Your task to perform on an android device: Go to Maps Image 0: 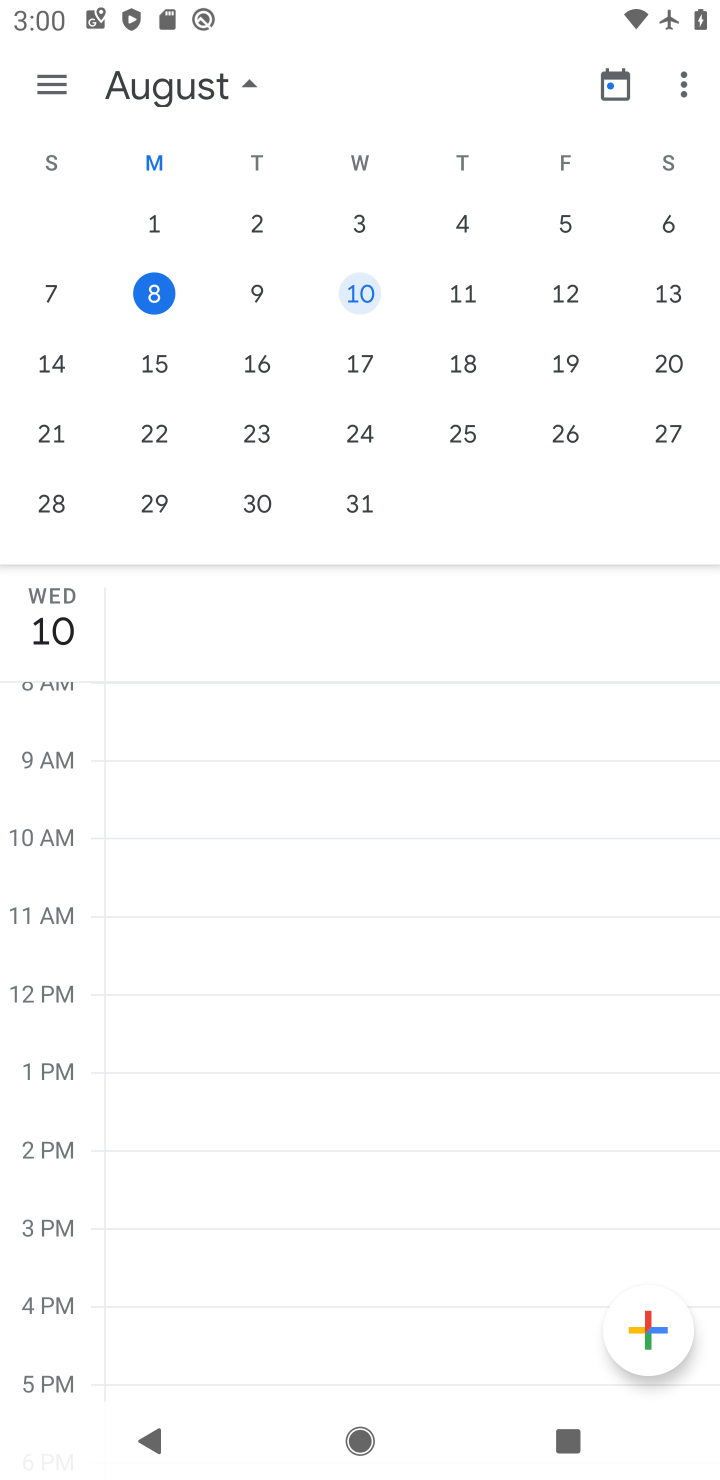
Step 0: press home button
Your task to perform on an android device: Go to Maps Image 1: 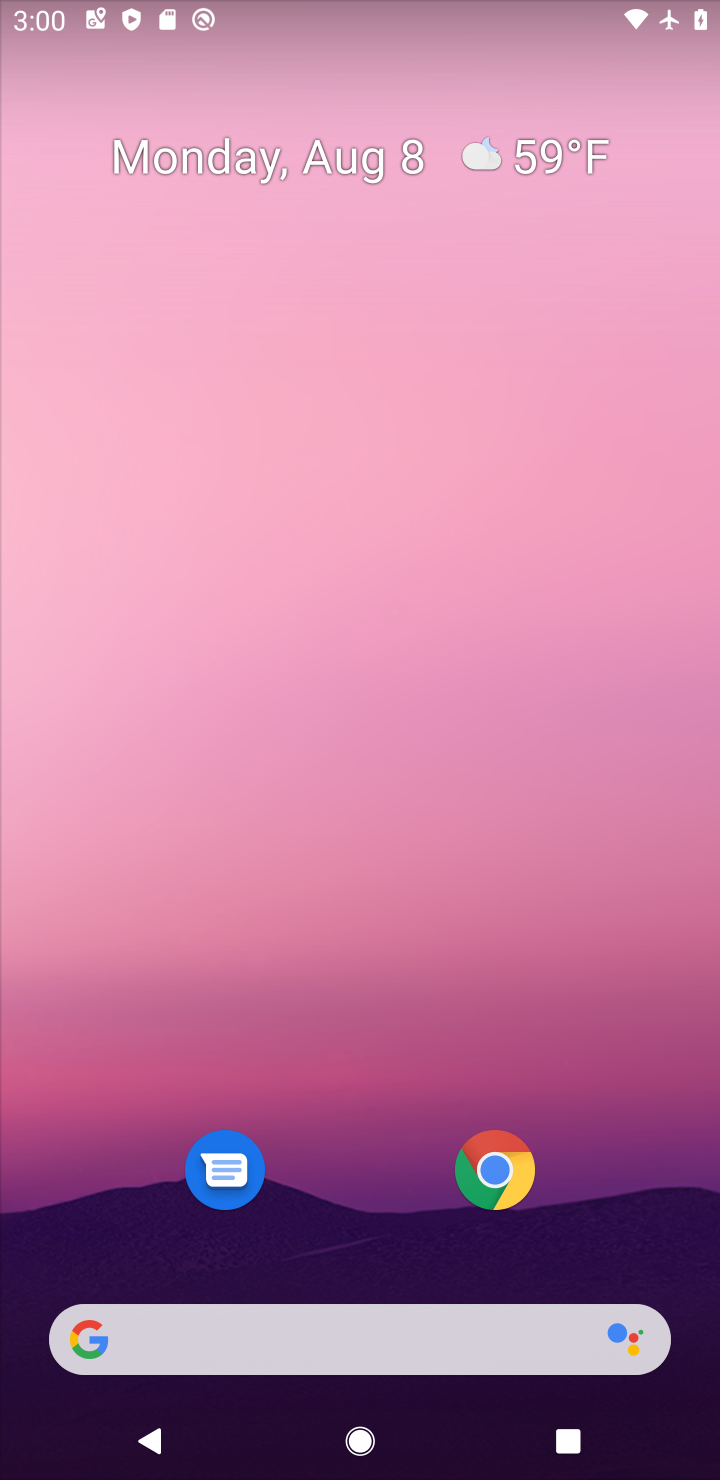
Step 1: drag from (381, 976) to (387, 434)
Your task to perform on an android device: Go to Maps Image 2: 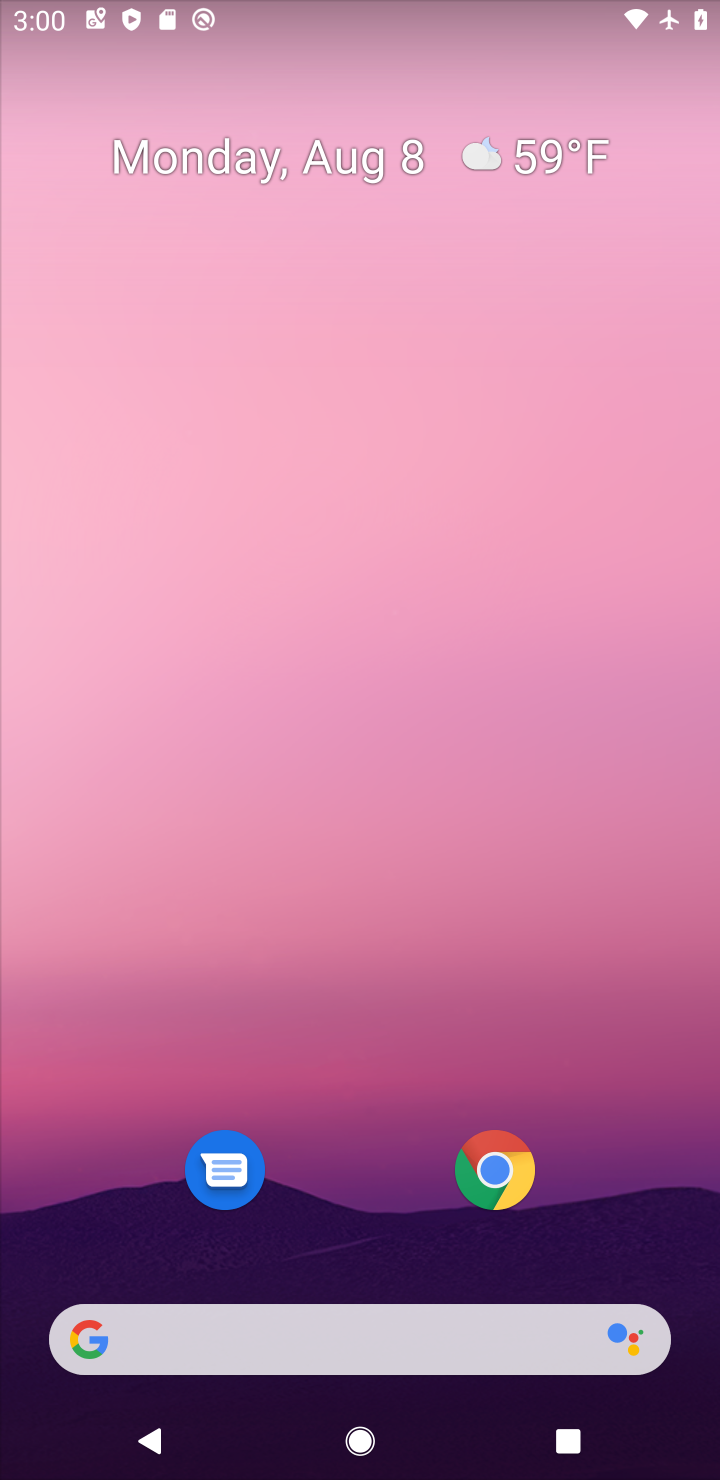
Step 2: drag from (336, 906) to (348, 421)
Your task to perform on an android device: Go to Maps Image 3: 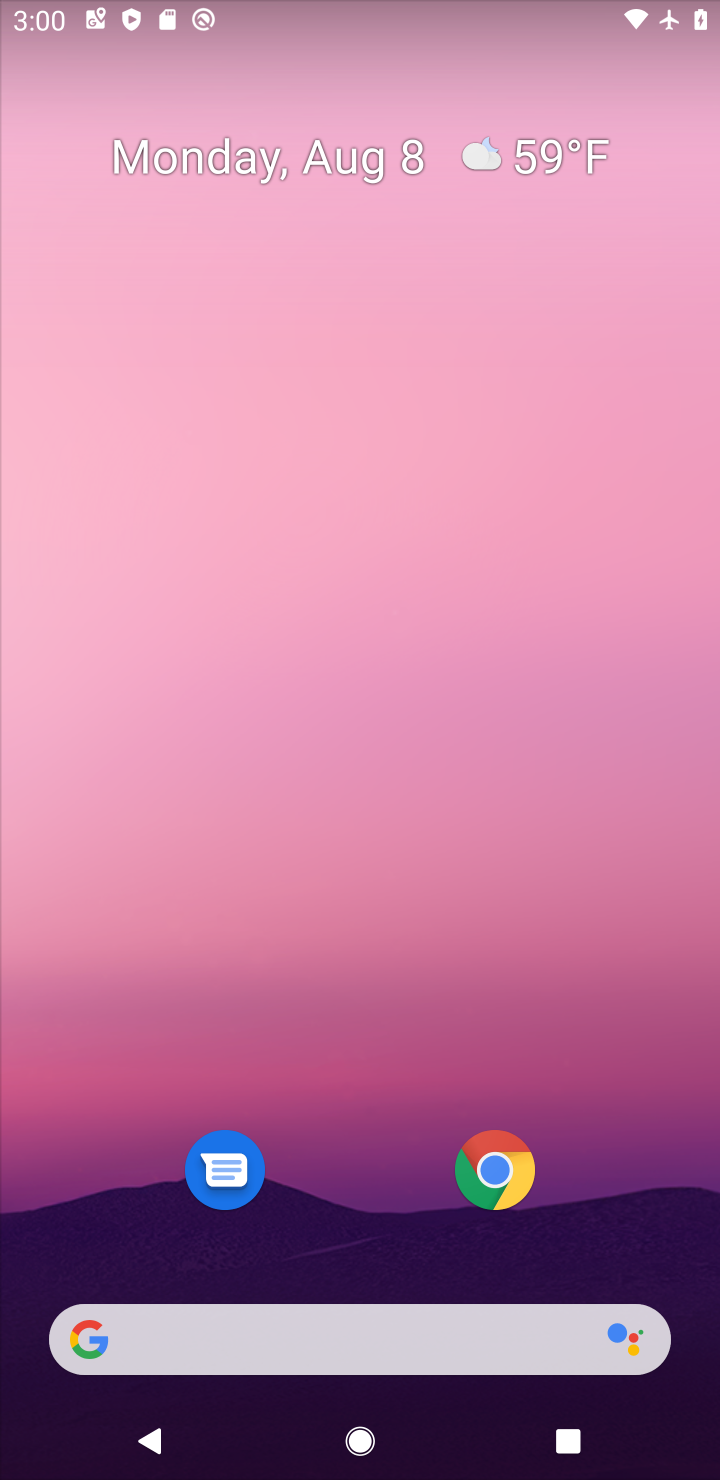
Step 3: drag from (342, 800) to (342, 453)
Your task to perform on an android device: Go to Maps Image 4: 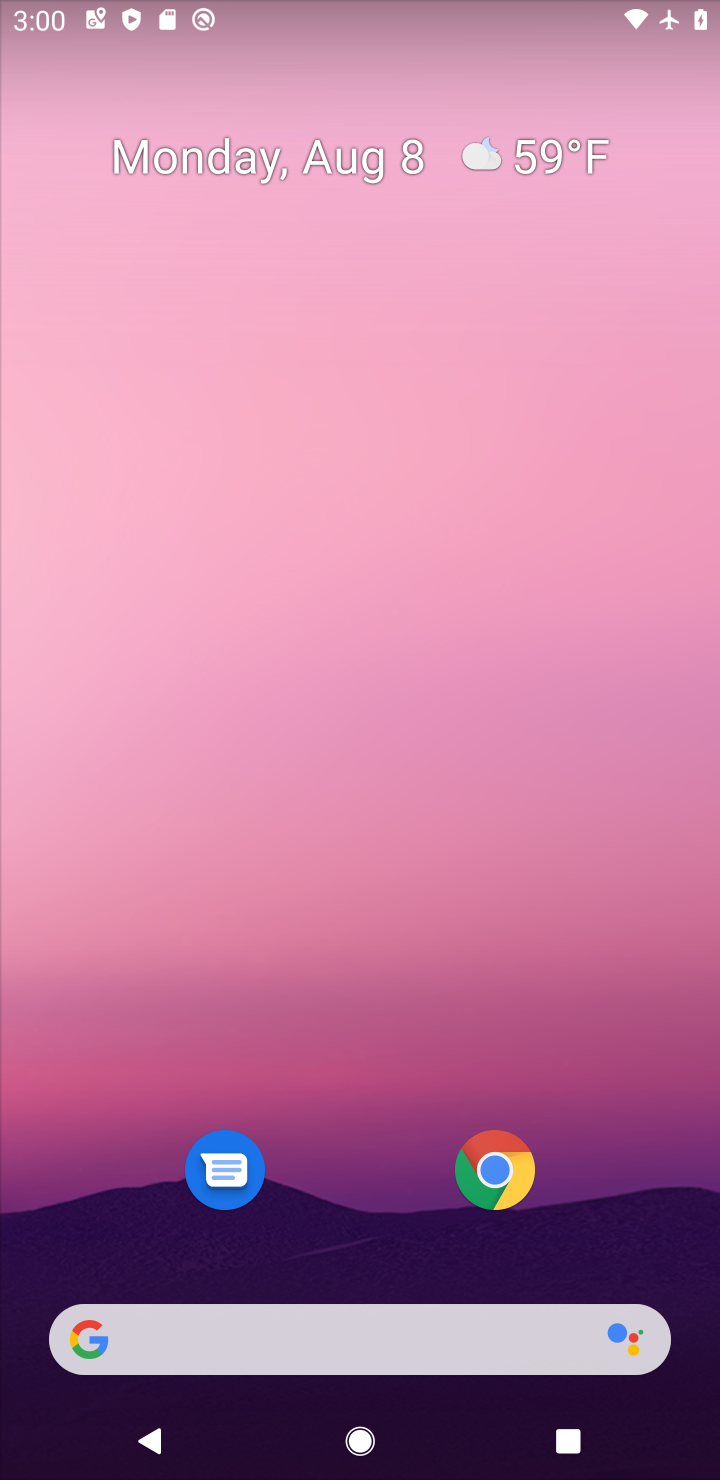
Step 4: drag from (365, 1034) to (392, 440)
Your task to perform on an android device: Go to Maps Image 5: 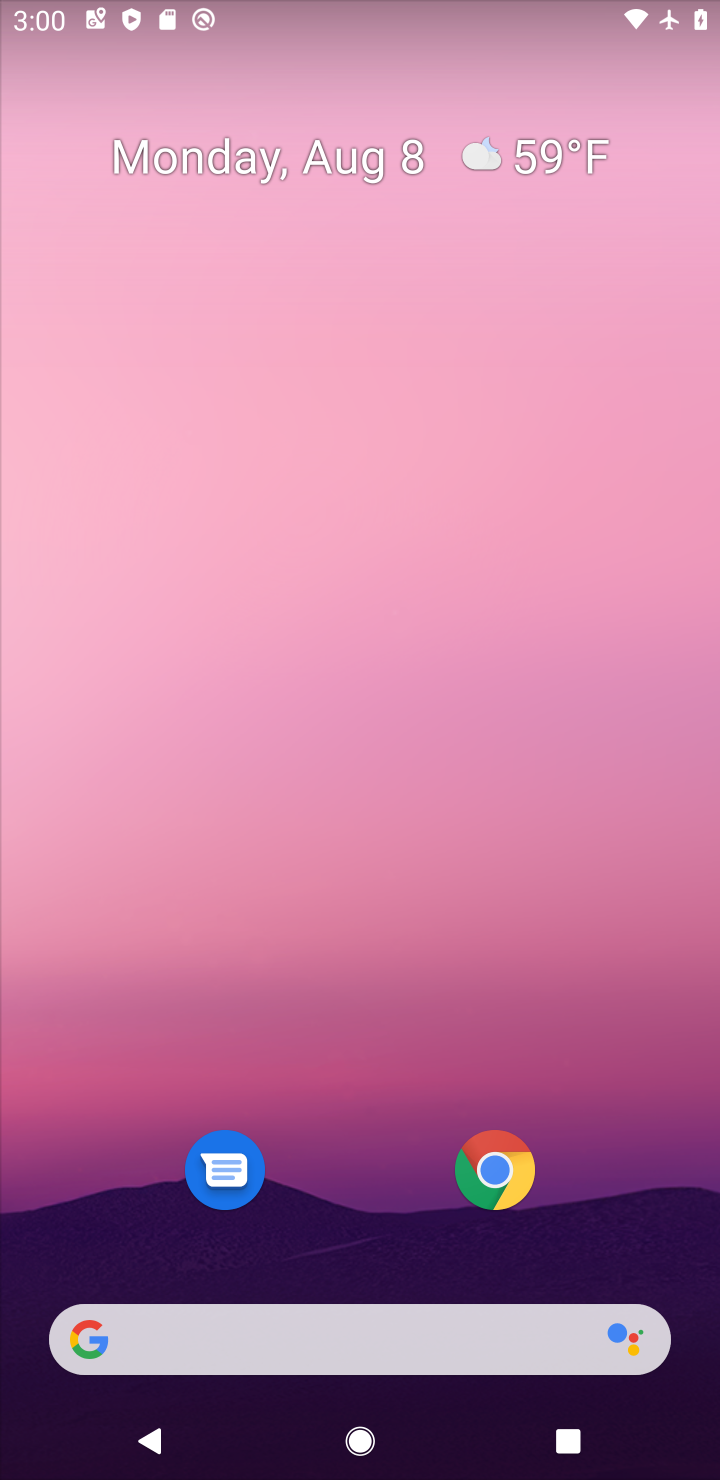
Step 5: drag from (315, 1201) to (440, 398)
Your task to perform on an android device: Go to Maps Image 6: 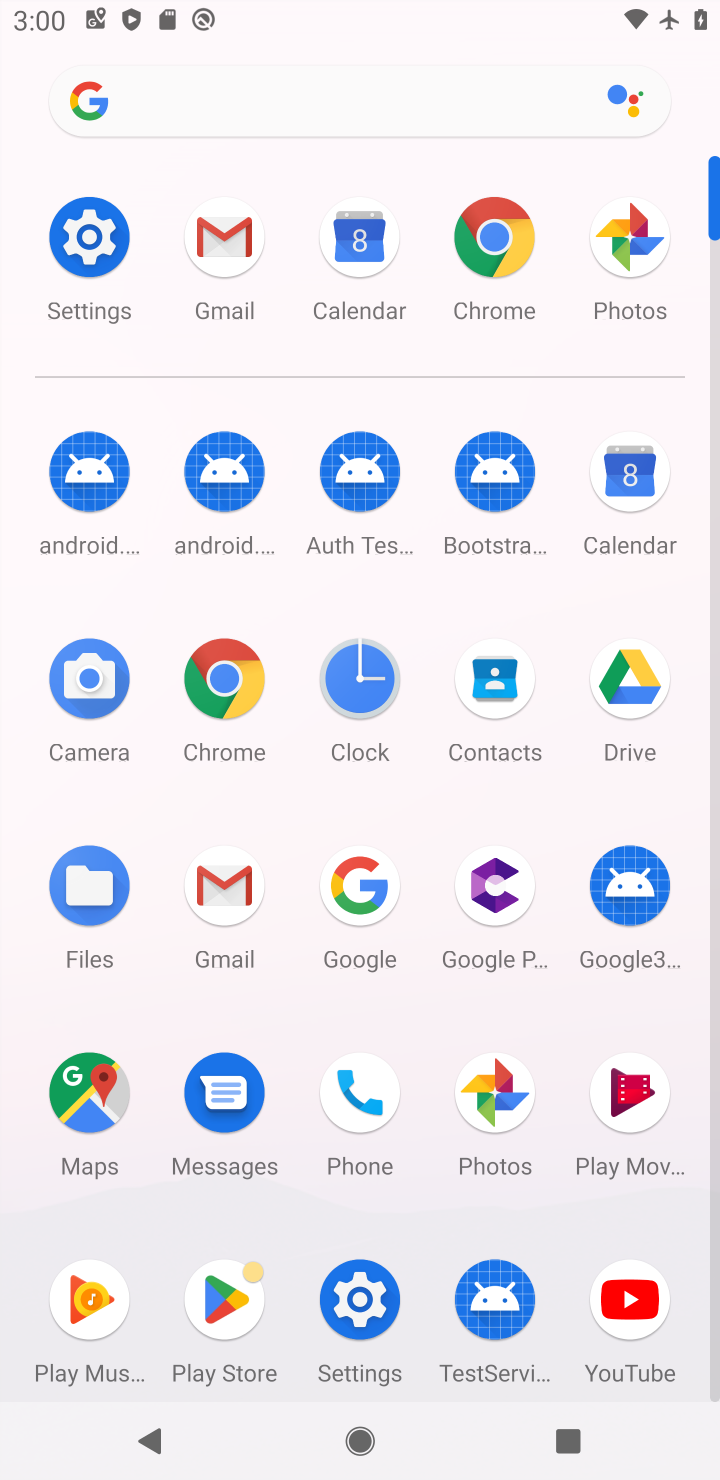
Step 6: click (116, 1083)
Your task to perform on an android device: Go to Maps Image 7: 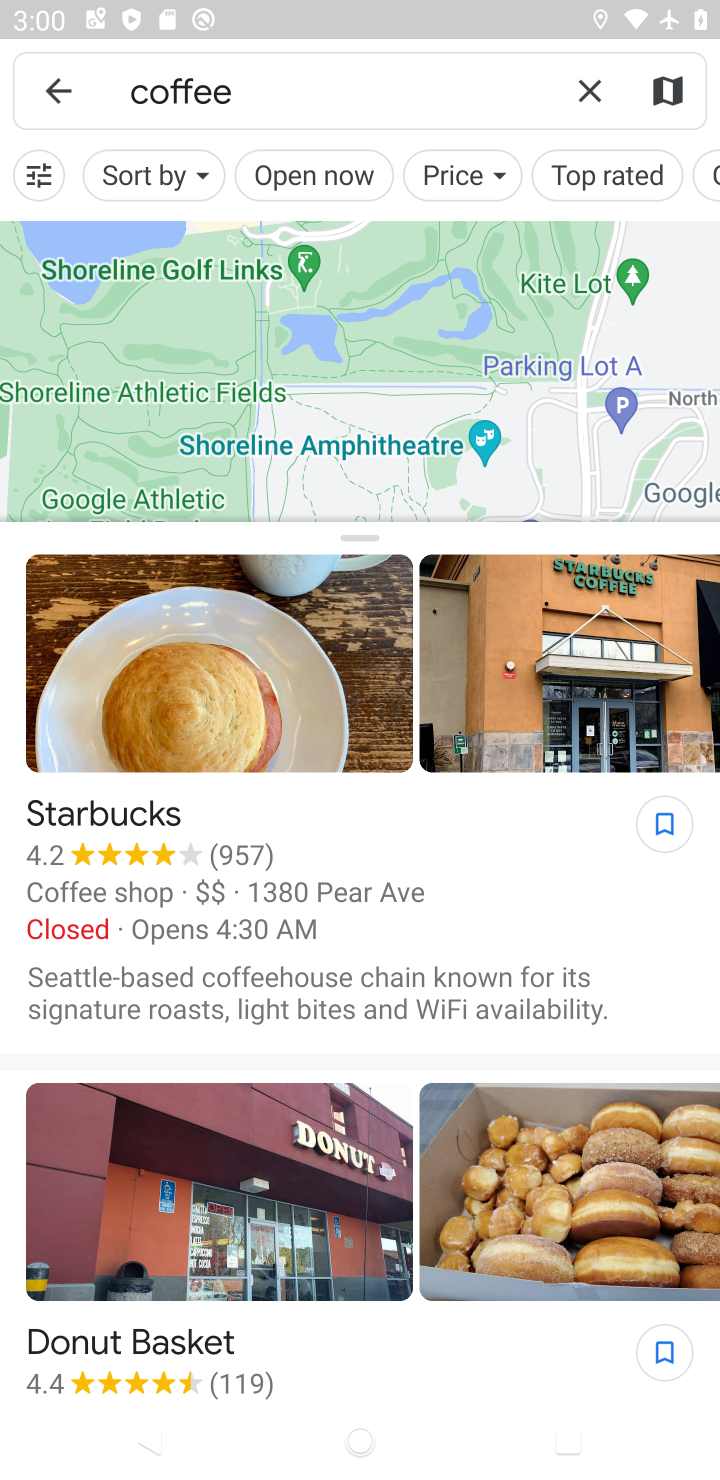
Step 7: task complete